Your task to perform on an android device: empty trash in google photos Image 0: 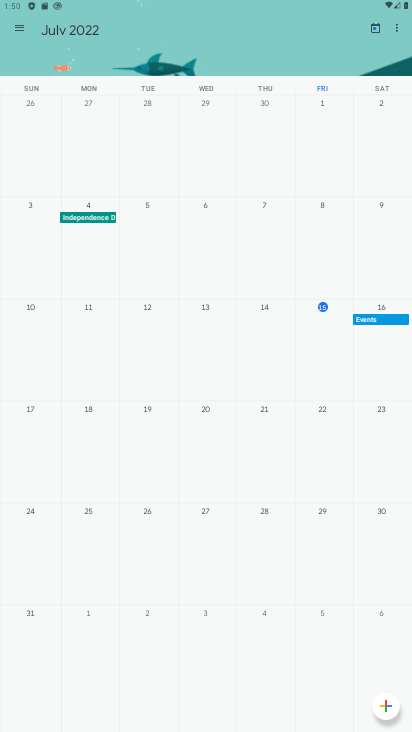
Step 0: press home button
Your task to perform on an android device: empty trash in google photos Image 1: 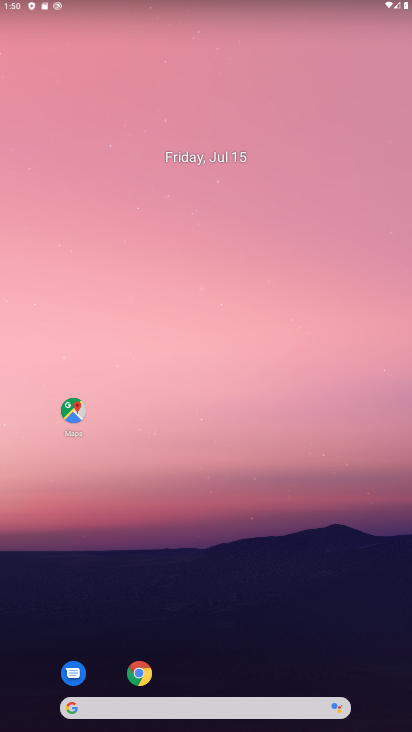
Step 1: drag from (267, 557) to (358, 109)
Your task to perform on an android device: empty trash in google photos Image 2: 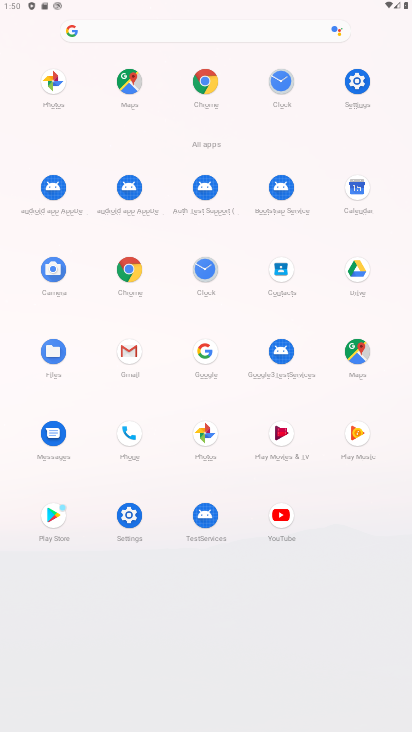
Step 2: click (202, 431)
Your task to perform on an android device: empty trash in google photos Image 3: 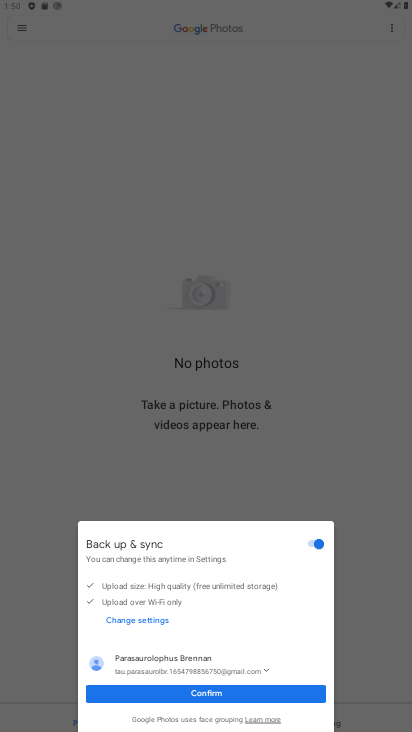
Step 3: click (210, 697)
Your task to perform on an android device: empty trash in google photos Image 4: 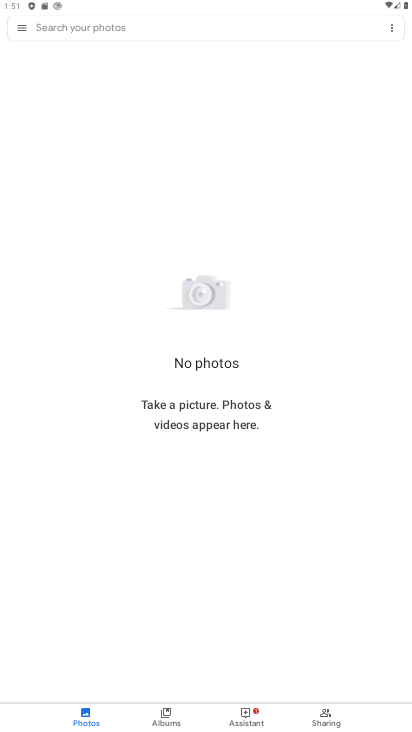
Step 4: click (14, 27)
Your task to perform on an android device: empty trash in google photos Image 5: 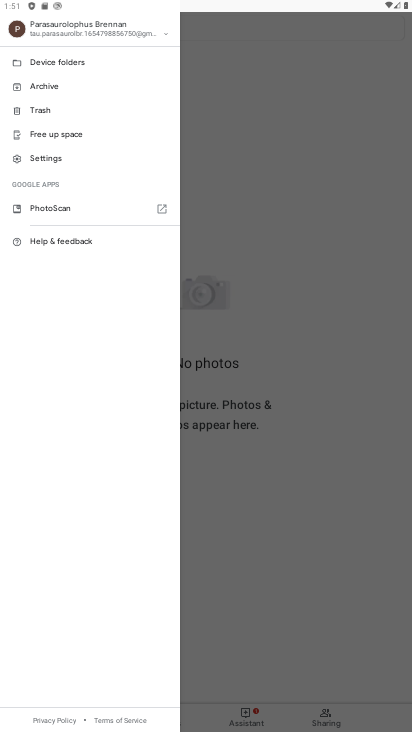
Step 5: click (42, 108)
Your task to perform on an android device: empty trash in google photos Image 6: 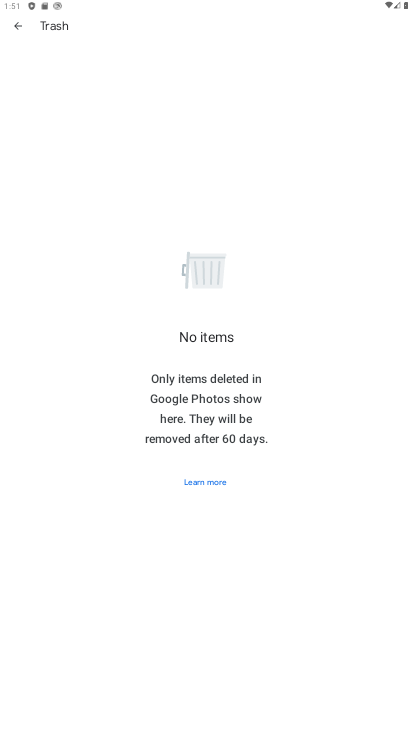
Step 6: task complete